Your task to perform on an android device: Open Google Chrome Image 0: 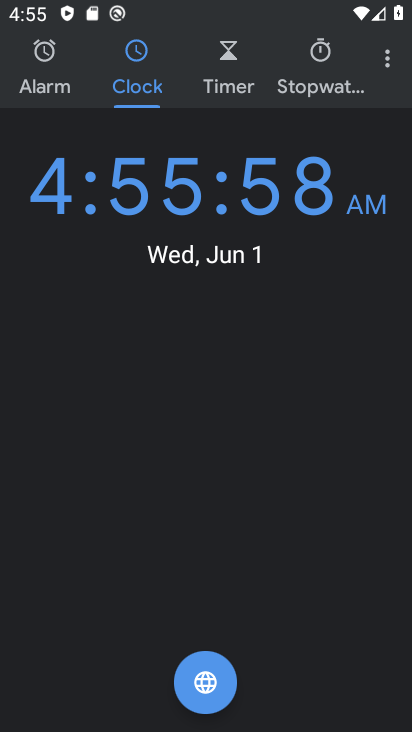
Step 0: press back button
Your task to perform on an android device: Open Google Chrome Image 1: 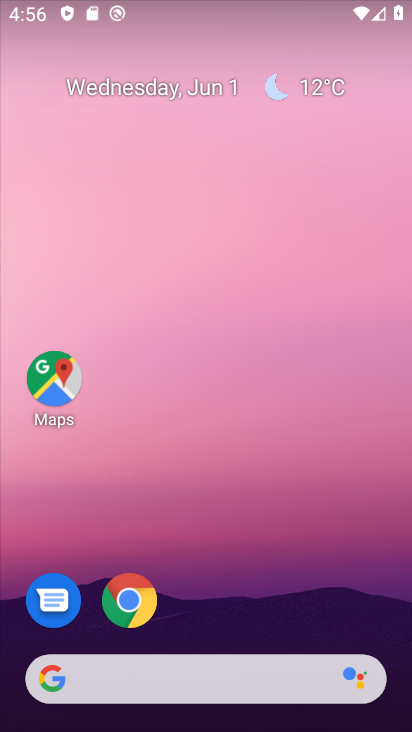
Step 1: click (131, 604)
Your task to perform on an android device: Open Google Chrome Image 2: 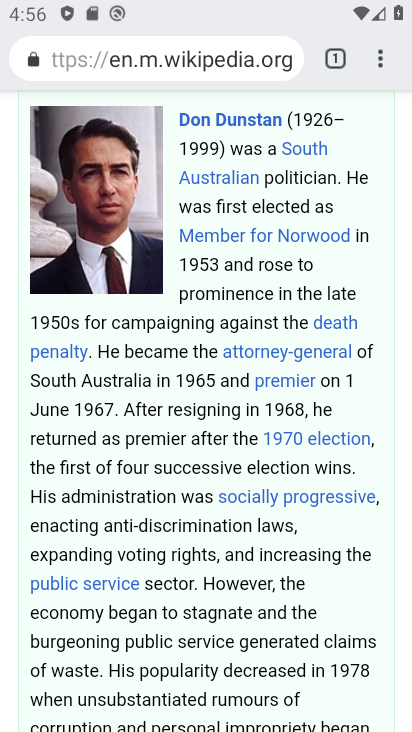
Step 2: task complete